Your task to perform on an android device: set default search engine in the chrome app Image 0: 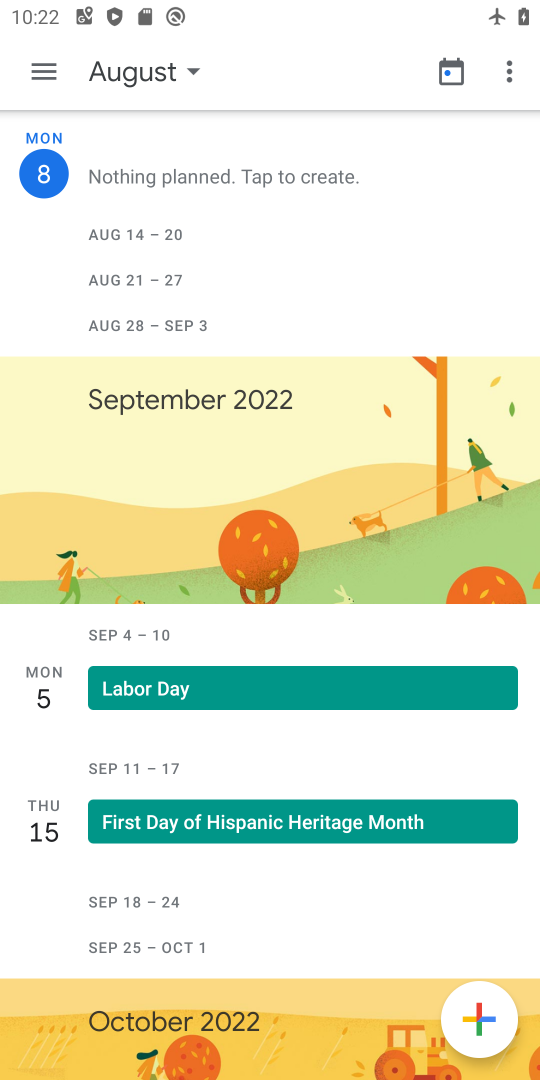
Step 0: press home button
Your task to perform on an android device: set default search engine in the chrome app Image 1: 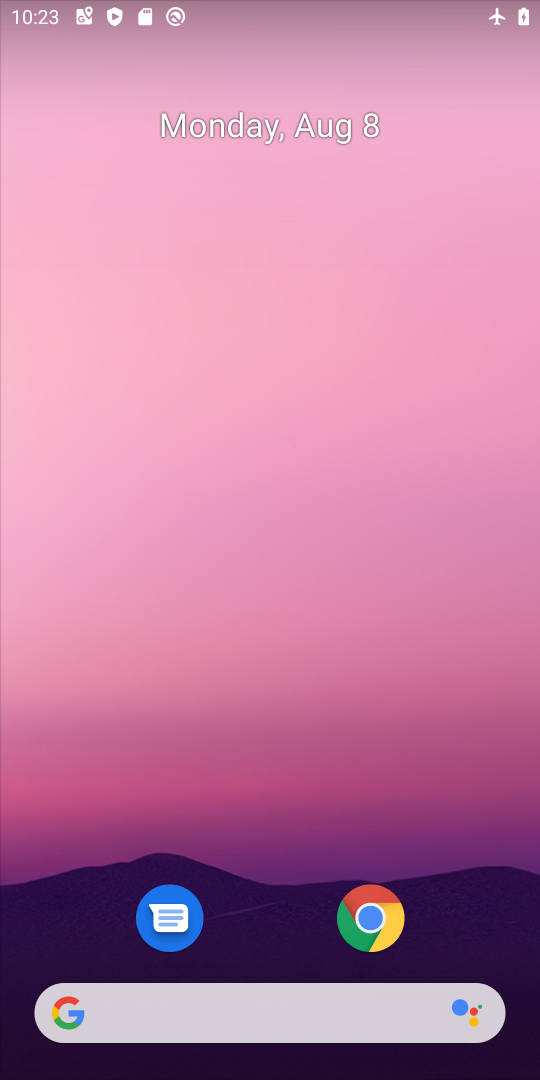
Step 1: drag from (234, 980) to (244, 177)
Your task to perform on an android device: set default search engine in the chrome app Image 2: 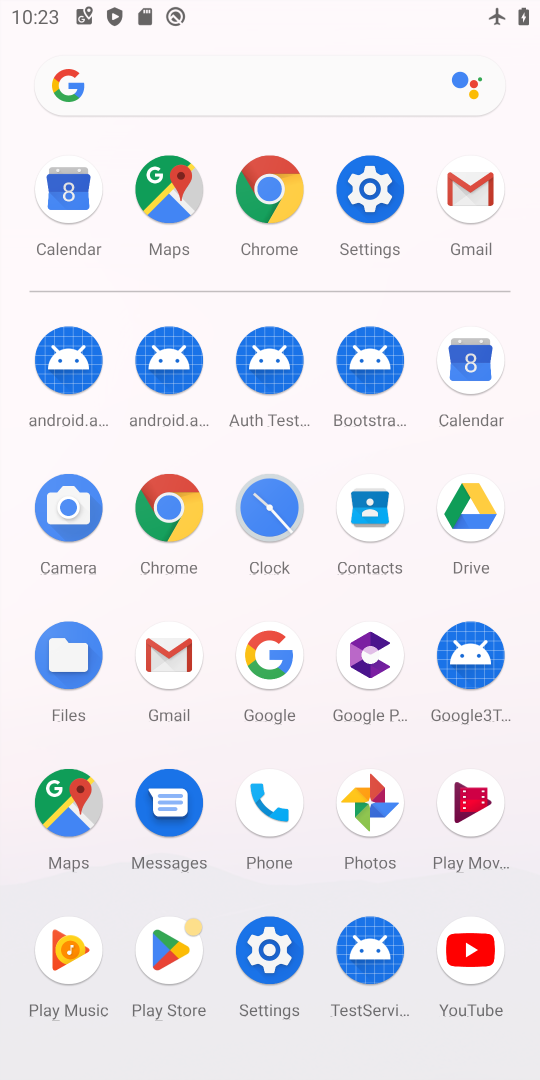
Step 2: click (174, 495)
Your task to perform on an android device: set default search engine in the chrome app Image 3: 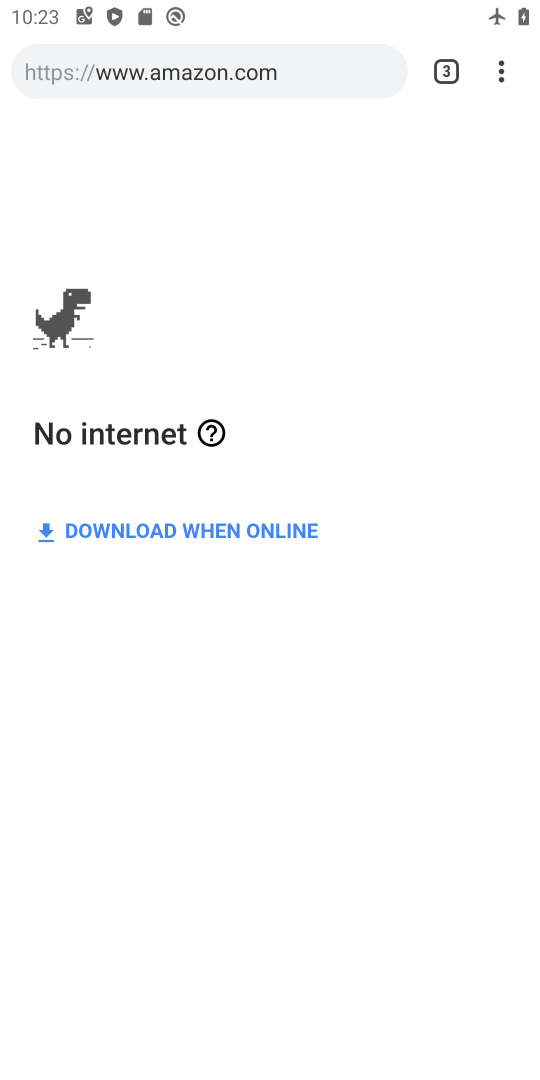
Step 3: drag from (500, 86) to (239, 810)
Your task to perform on an android device: set default search engine in the chrome app Image 4: 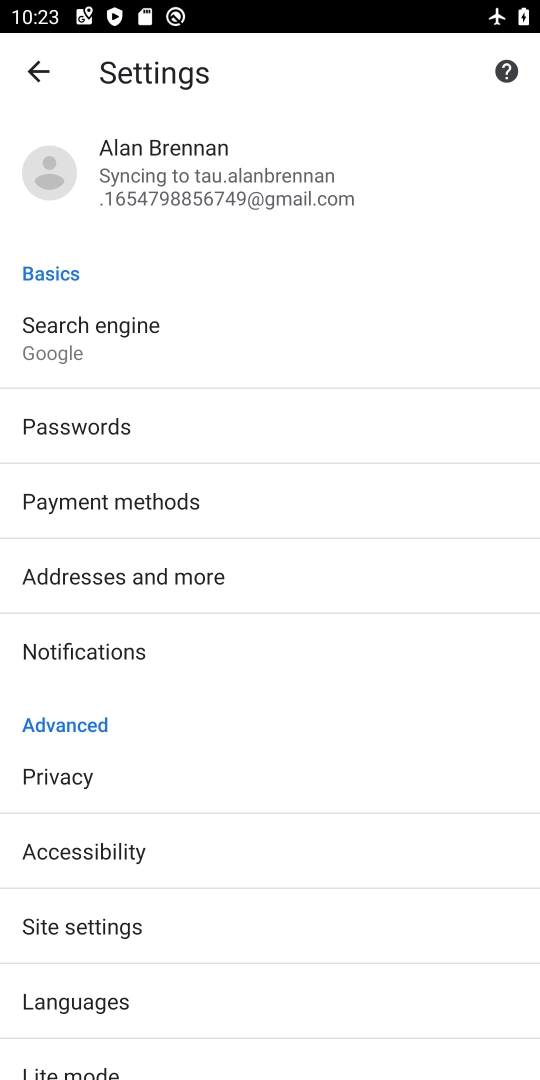
Step 4: click (174, 329)
Your task to perform on an android device: set default search engine in the chrome app Image 5: 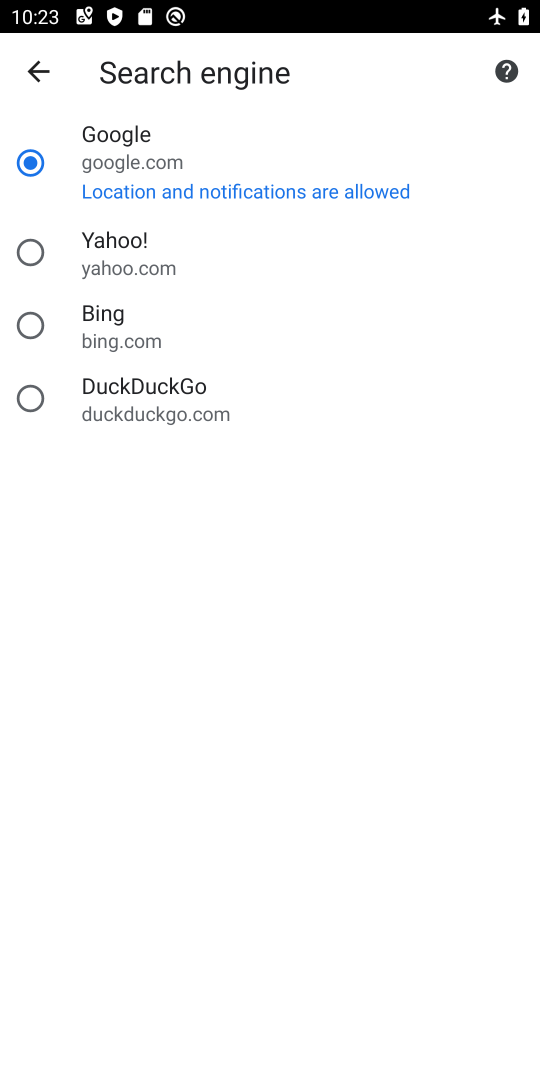
Step 5: click (151, 149)
Your task to perform on an android device: set default search engine in the chrome app Image 6: 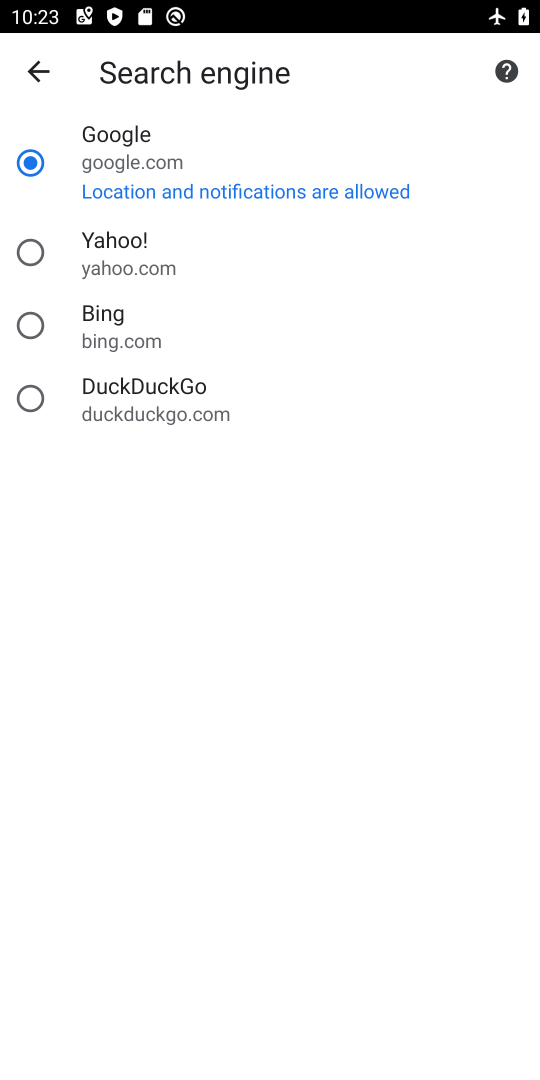
Step 6: task complete